Your task to perform on an android device: turn on bluetooth scan Image 0: 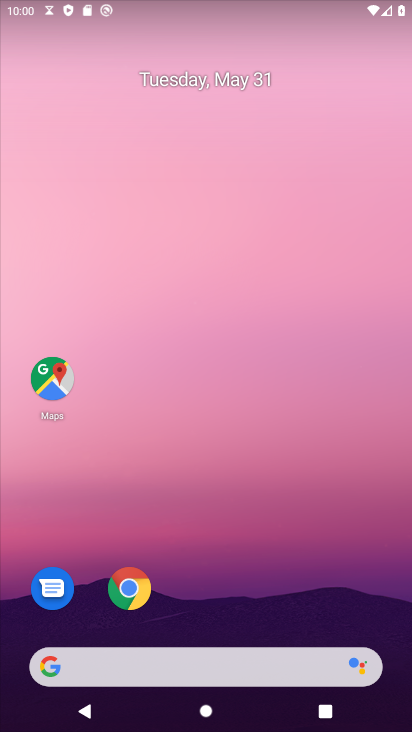
Step 0: drag from (288, 589) to (201, 78)
Your task to perform on an android device: turn on bluetooth scan Image 1: 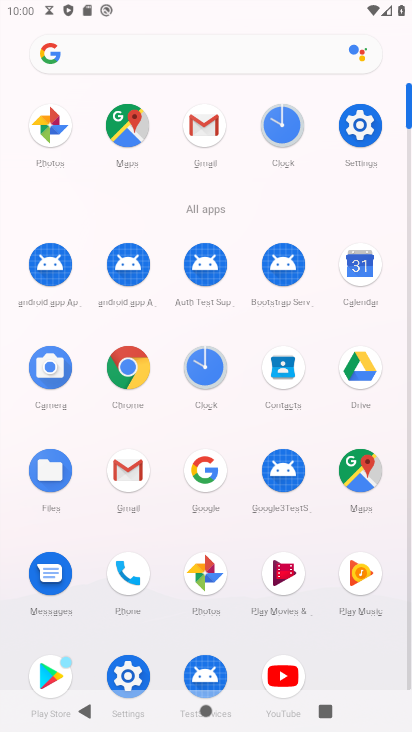
Step 1: click (361, 125)
Your task to perform on an android device: turn on bluetooth scan Image 2: 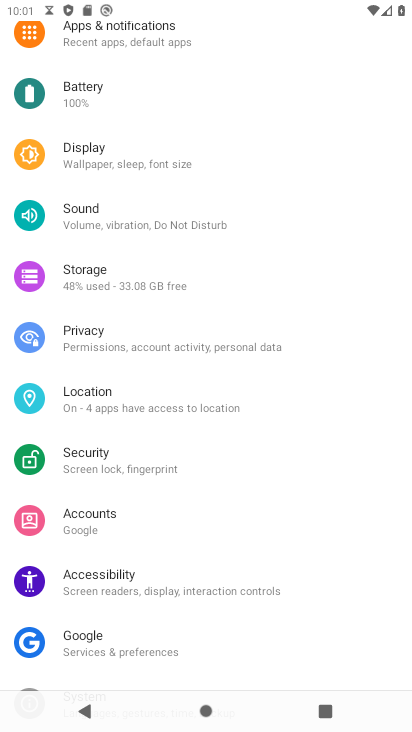
Step 2: click (129, 400)
Your task to perform on an android device: turn on bluetooth scan Image 3: 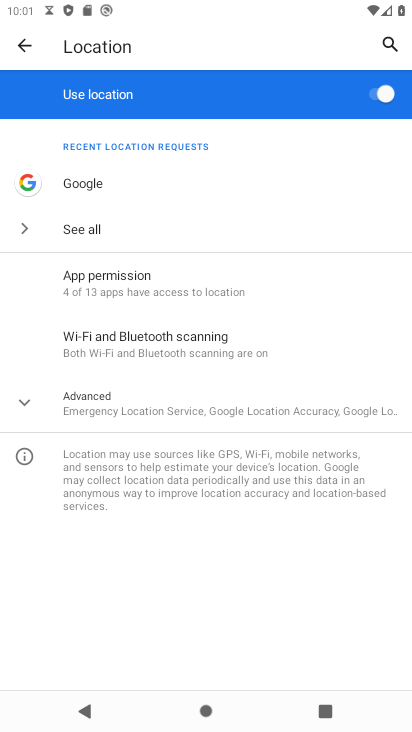
Step 3: click (161, 352)
Your task to perform on an android device: turn on bluetooth scan Image 4: 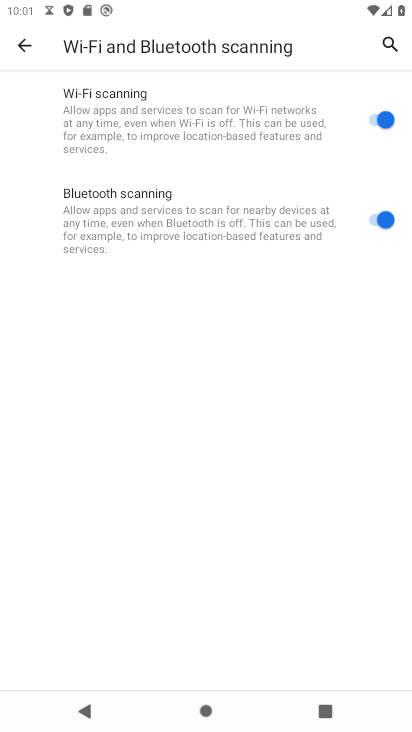
Step 4: task complete